Your task to perform on an android device: Check the weather Image 0: 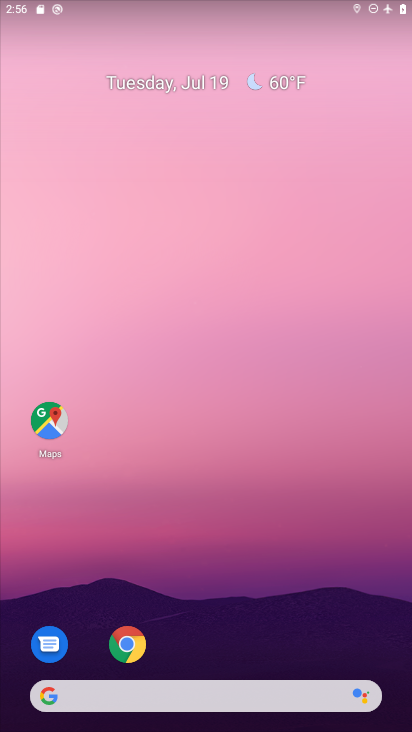
Step 0: click (219, 684)
Your task to perform on an android device: Check the weather Image 1: 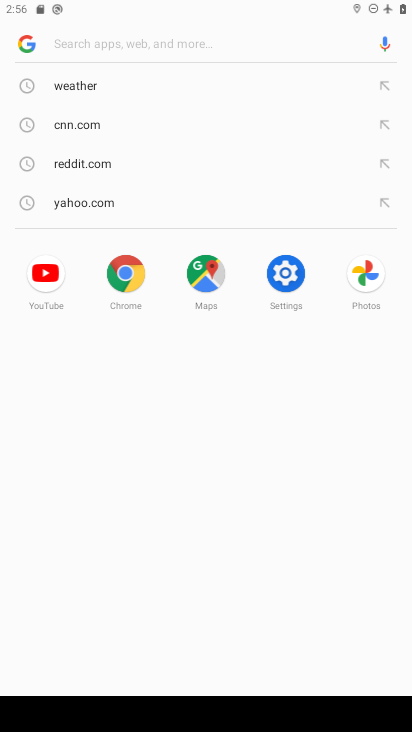
Step 1: click (83, 72)
Your task to perform on an android device: Check the weather Image 2: 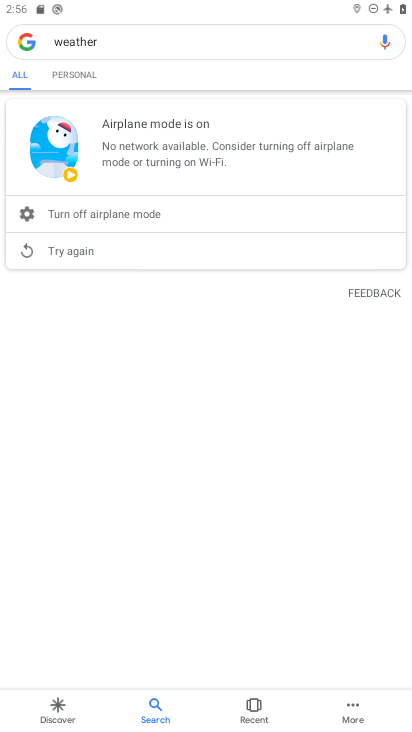
Step 2: task complete